Your task to perform on an android device: Open Google Chrome and click the shortcut for Amazon.com Image 0: 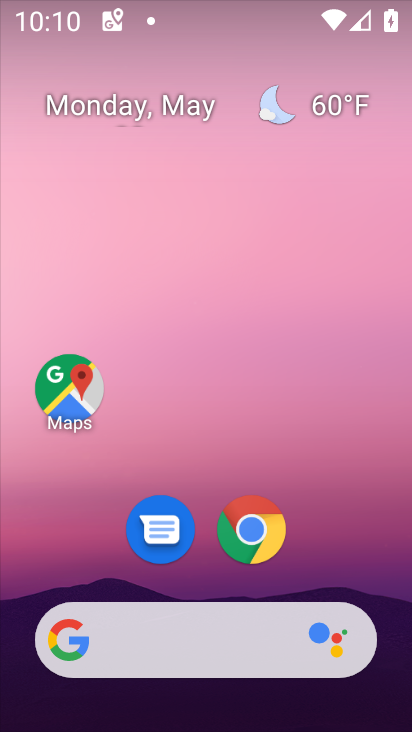
Step 0: click (250, 527)
Your task to perform on an android device: Open Google Chrome and click the shortcut for Amazon.com Image 1: 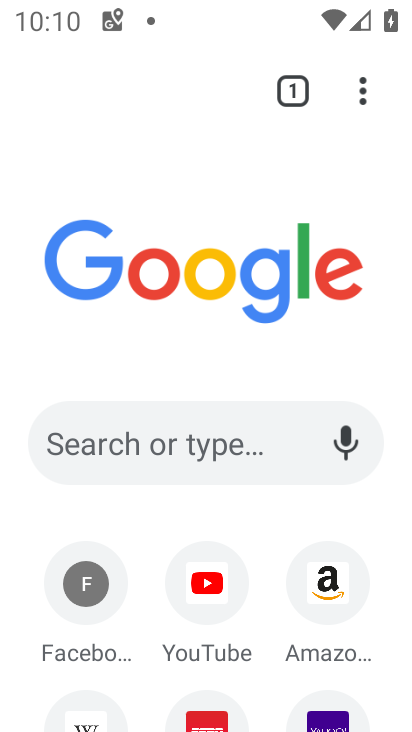
Step 1: click (325, 585)
Your task to perform on an android device: Open Google Chrome and click the shortcut for Amazon.com Image 2: 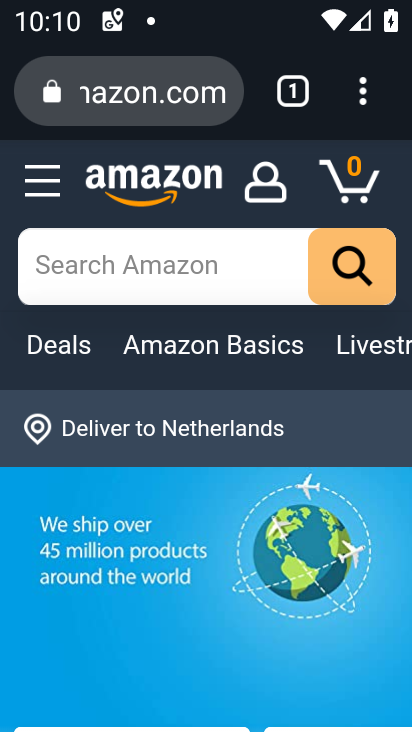
Step 2: task complete